Your task to perform on an android device: toggle improve location accuracy Image 0: 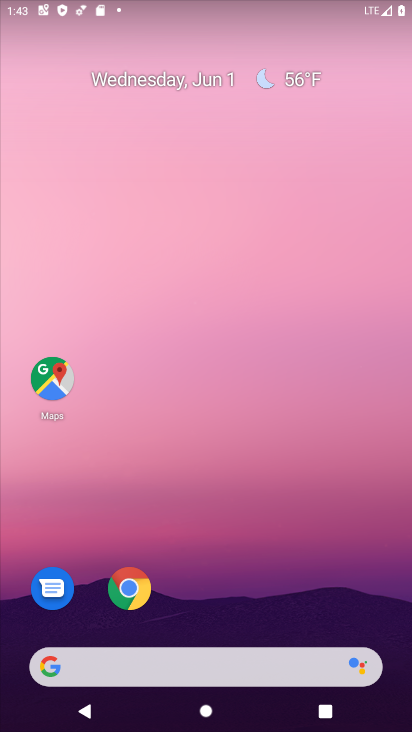
Step 0: drag from (286, 490) to (191, 3)
Your task to perform on an android device: toggle improve location accuracy Image 1: 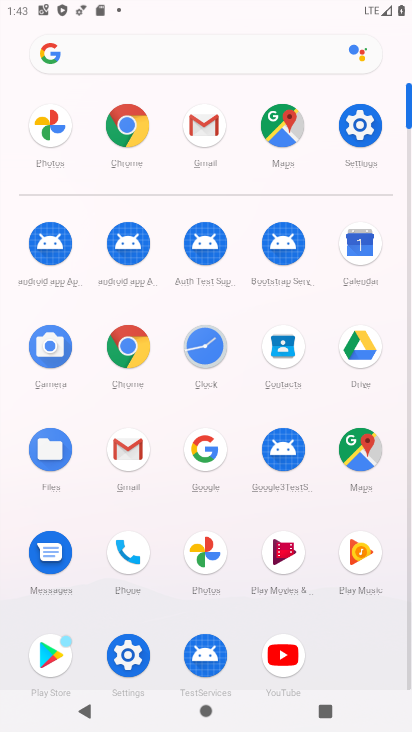
Step 1: click (350, 118)
Your task to perform on an android device: toggle improve location accuracy Image 2: 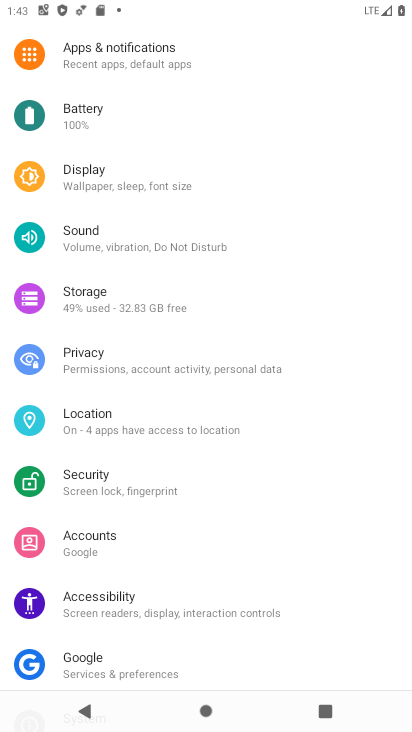
Step 2: click (123, 425)
Your task to perform on an android device: toggle improve location accuracy Image 3: 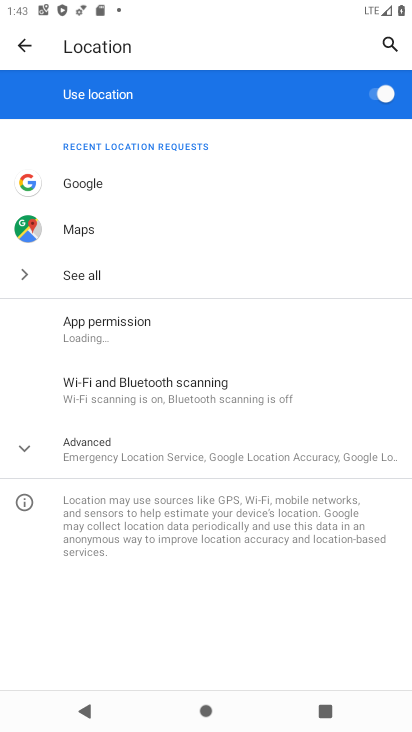
Step 3: drag from (241, 537) to (245, 261)
Your task to perform on an android device: toggle improve location accuracy Image 4: 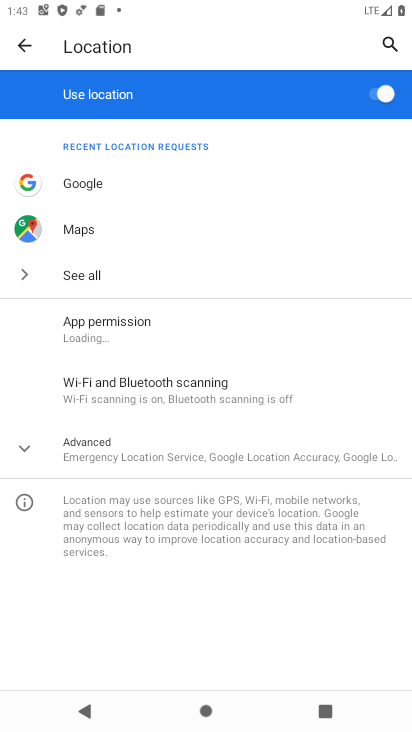
Step 4: click (180, 446)
Your task to perform on an android device: toggle improve location accuracy Image 5: 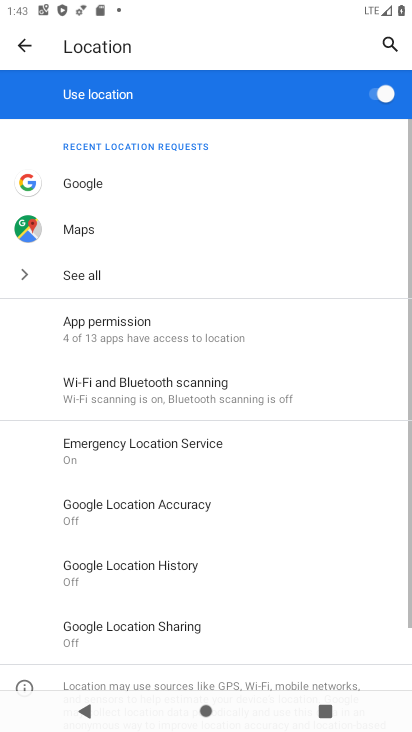
Step 5: drag from (306, 523) to (288, 51)
Your task to perform on an android device: toggle improve location accuracy Image 6: 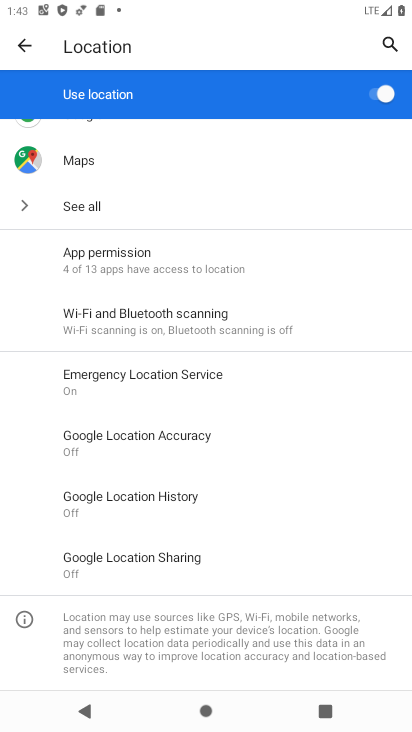
Step 6: click (220, 434)
Your task to perform on an android device: toggle improve location accuracy Image 7: 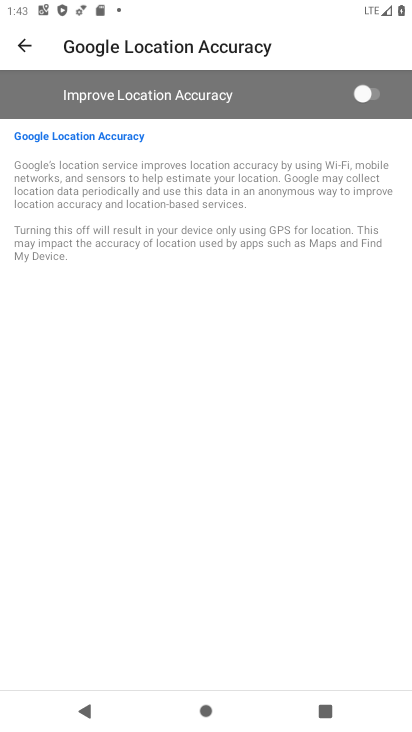
Step 7: click (371, 79)
Your task to perform on an android device: toggle improve location accuracy Image 8: 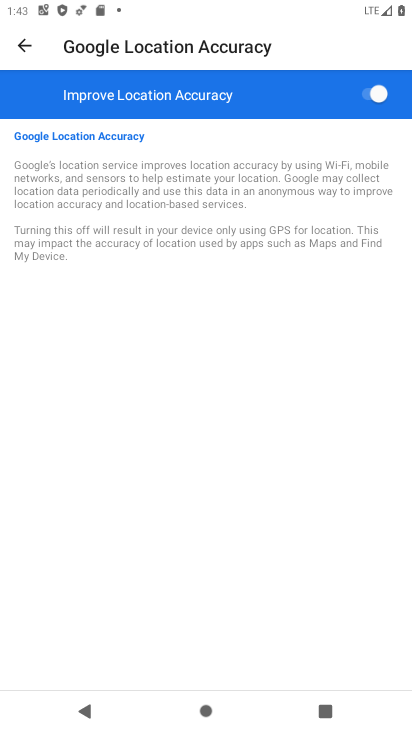
Step 8: task complete